Your task to perform on an android device: toggle translation in the chrome app Image 0: 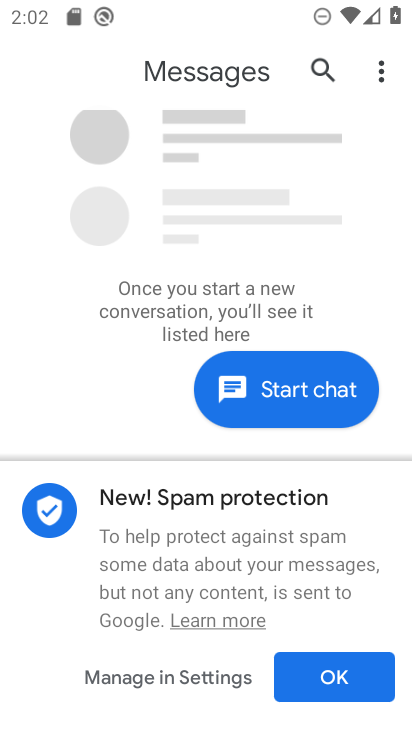
Step 0: drag from (381, 674) to (175, 119)
Your task to perform on an android device: toggle translation in the chrome app Image 1: 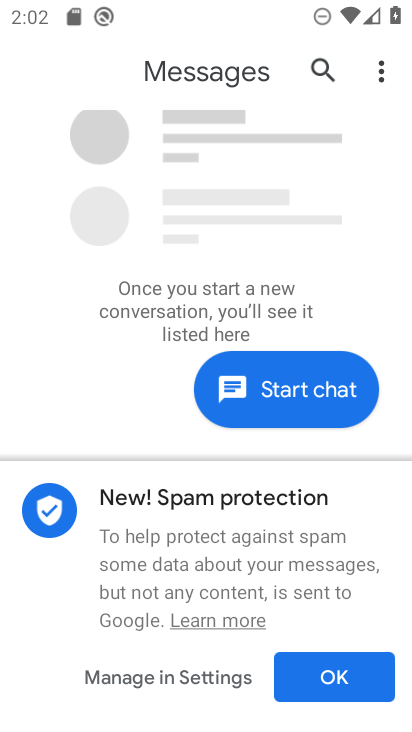
Step 1: press back button
Your task to perform on an android device: toggle translation in the chrome app Image 2: 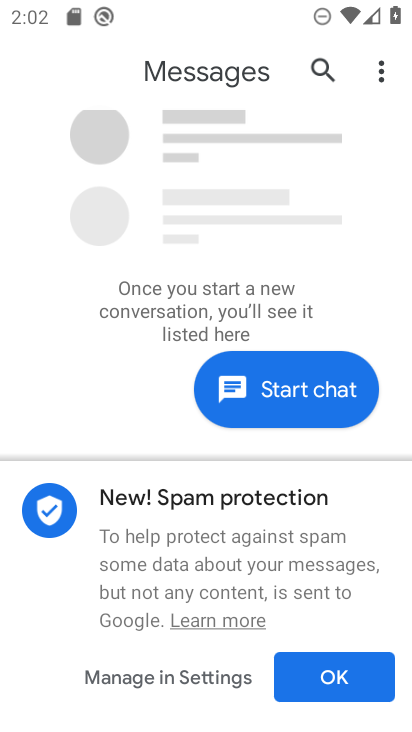
Step 2: press back button
Your task to perform on an android device: toggle translation in the chrome app Image 3: 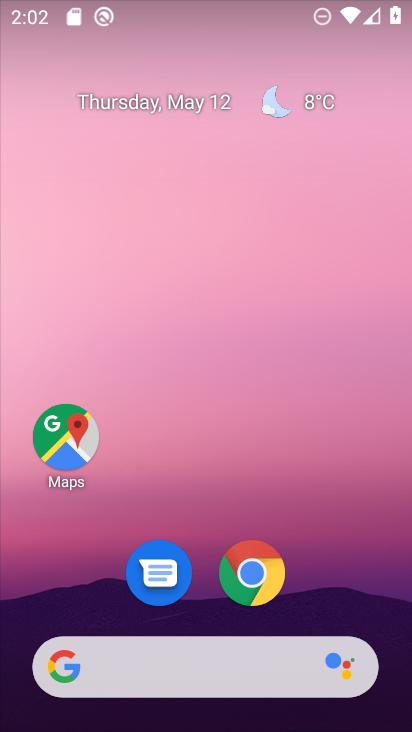
Step 3: drag from (340, 589) to (114, 84)
Your task to perform on an android device: toggle translation in the chrome app Image 4: 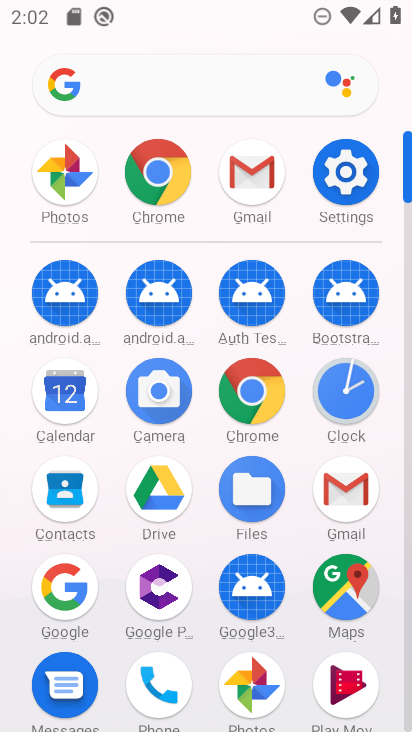
Step 4: click (157, 172)
Your task to perform on an android device: toggle translation in the chrome app Image 5: 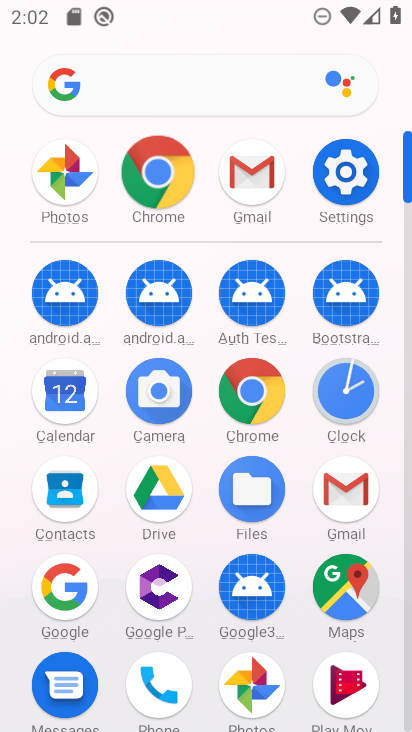
Step 5: click (155, 170)
Your task to perform on an android device: toggle translation in the chrome app Image 6: 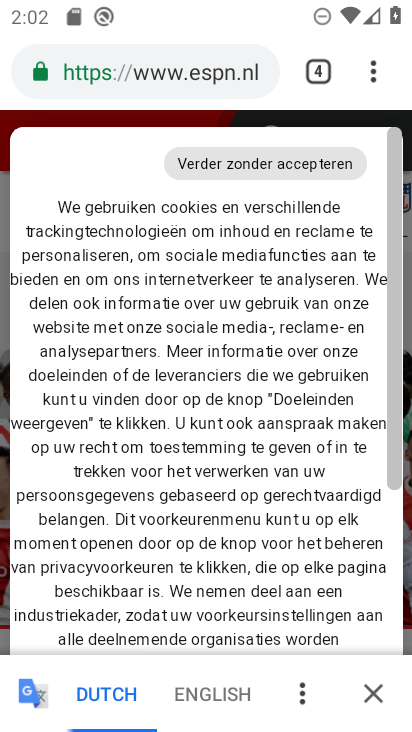
Step 6: drag from (374, 80) to (130, 541)
Your task to perform on an android device: toggle translation in the chrome app Image 7: 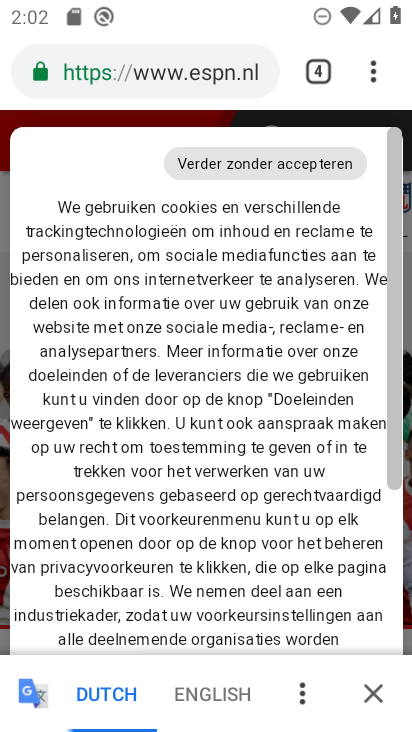
Step 7: click (128, 538)
Your task to perform on an android device: toggle translation in the chrome app Image 8: 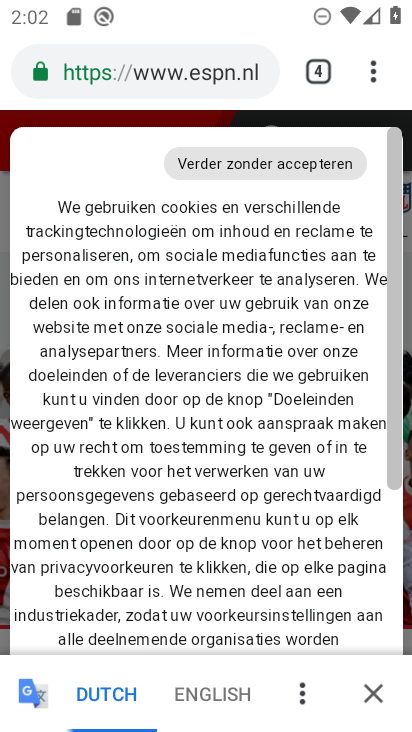
Step 8: drag from (371, 76) to (111, 570)
Your task to perform on an android device: toggle translation in the chrome app Image 9: 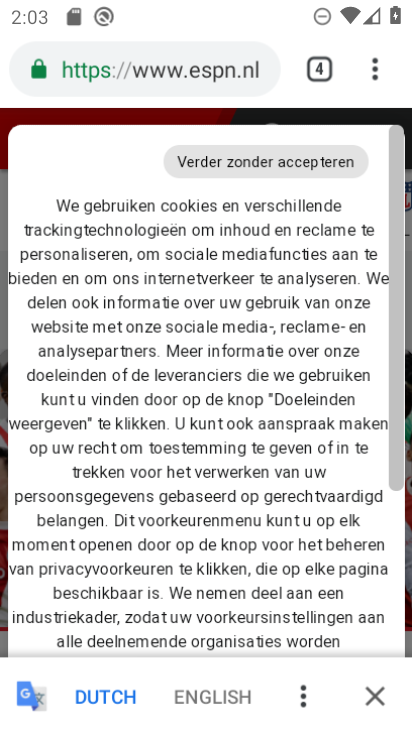
Step 9: click (113, 575)
Your task to perform on an android device: toggle translation in the chrome app Image 10: 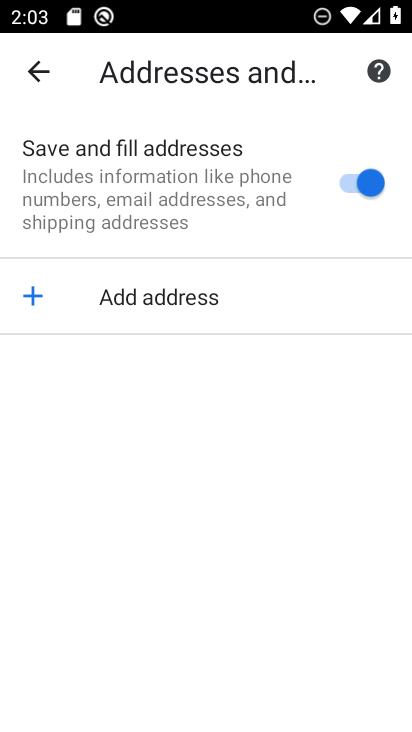
Step 10: click (32, 64)
Your task to perform on an android device: toggle translation in the chrome app Image 11: 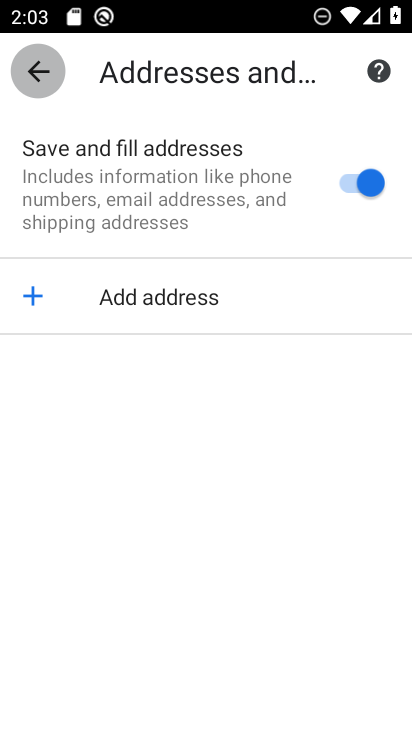
Step 11: click (32, 65)
Your task to perform on an android device: toggle translation in the chrome app Image 12: 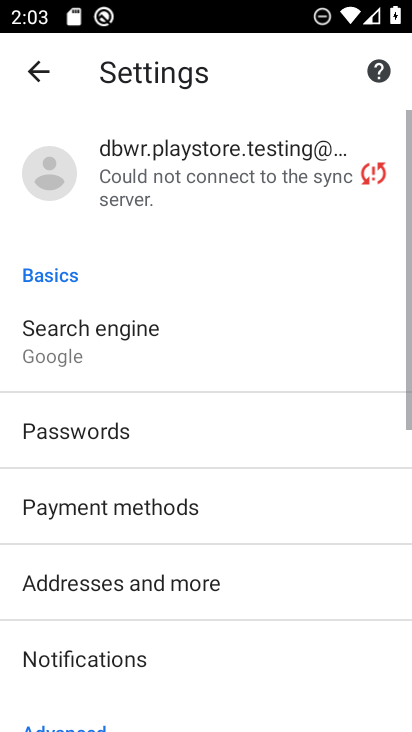
Step 12: drag from (148, 552) to (67, 228)
Your task to perform on an android device: toggle translation in the chrome app Image 13: 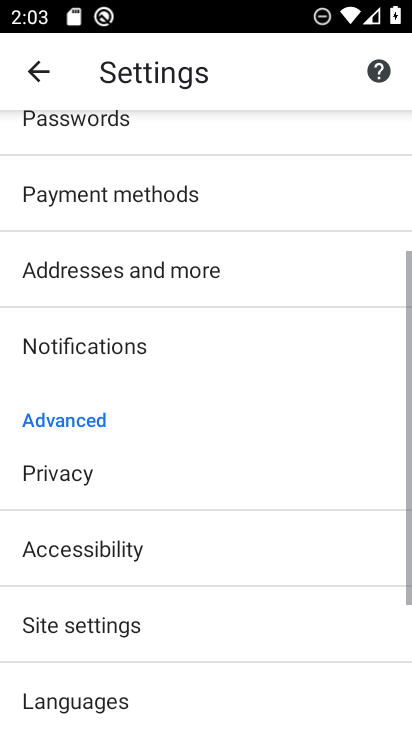
Step 13: drag from (133, 421) to (93, 117)
Your task to perform on an android device: toggle translation in the chrome app Image 14: 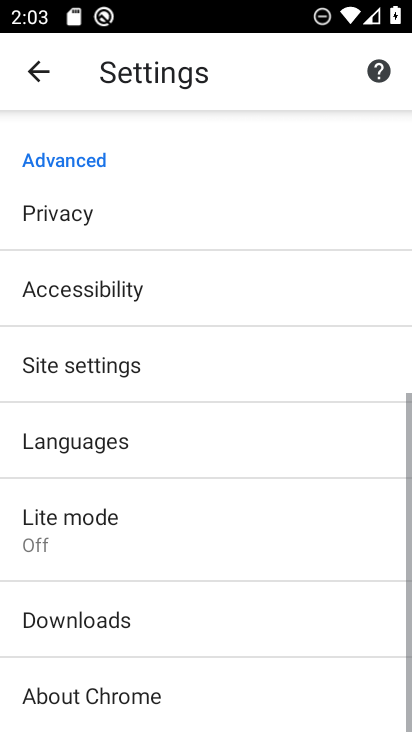
Step 14: drag from (172, 293) to (128, 64)
Your task to perform on an android device: toggle translation in the chrome app Image 15: 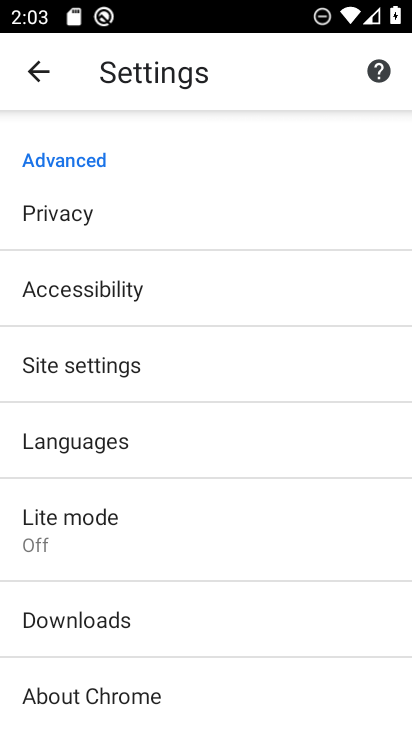
Step 15: click (78, 441)
Your task to perform on an android device: toggle translation in the chrome app Image 16: 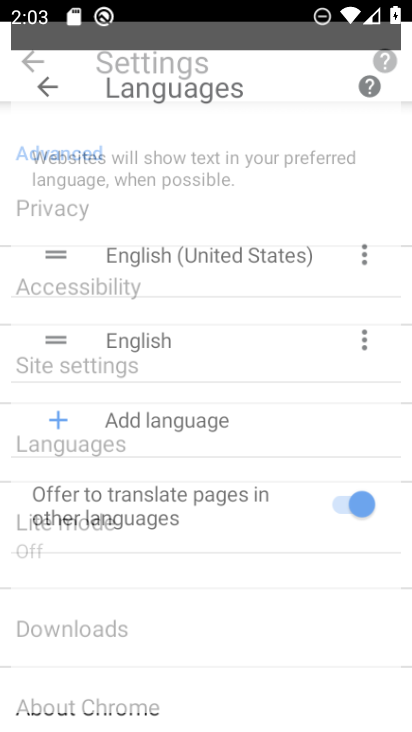
Step 16: click (80, 438)
Your task to perform on an android device: toggle translation in the chrome app Image 17: 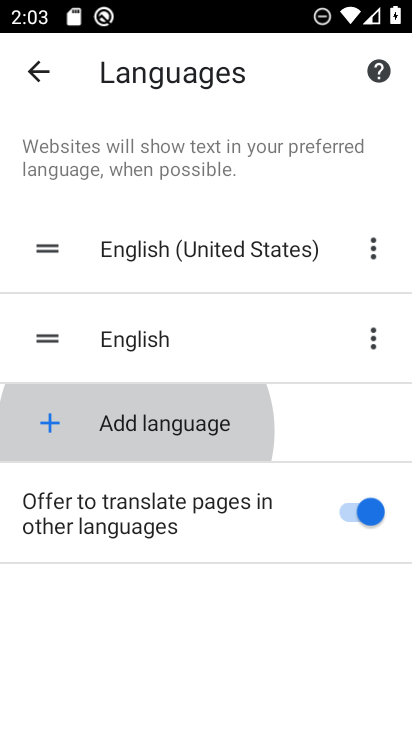
Step 17: click (83, 440)
Your task to perform on an android device: toggle translation in the chrome app Image 18: 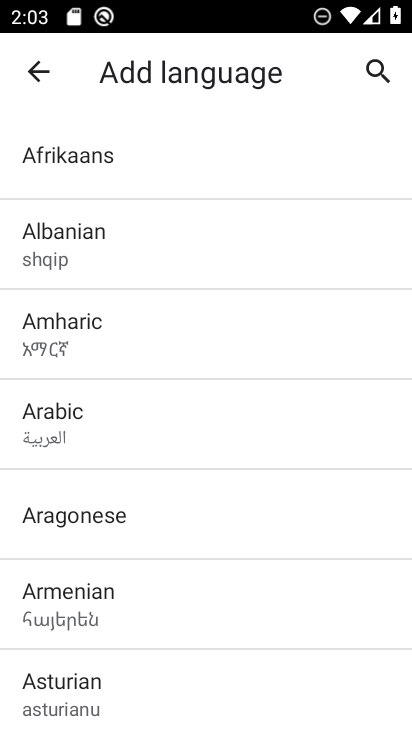
Step 18: click (36, 67)
Your task to perform on an android device: toggle translation in the chrome app Image 19: 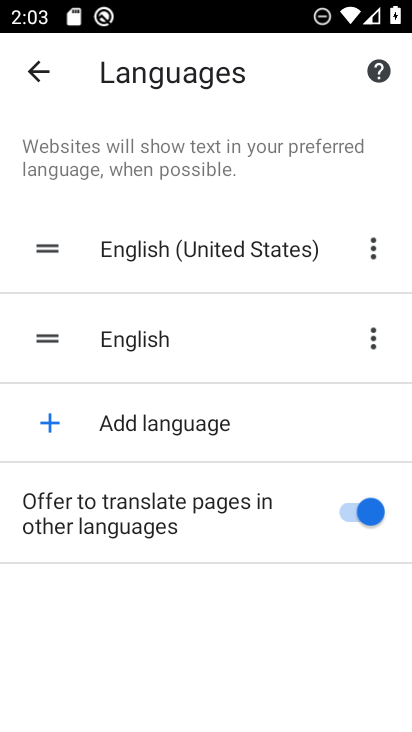
Step 19: click (364, 506)
Your task to perform on an android device: toggle translation in the chrome app Image 20: 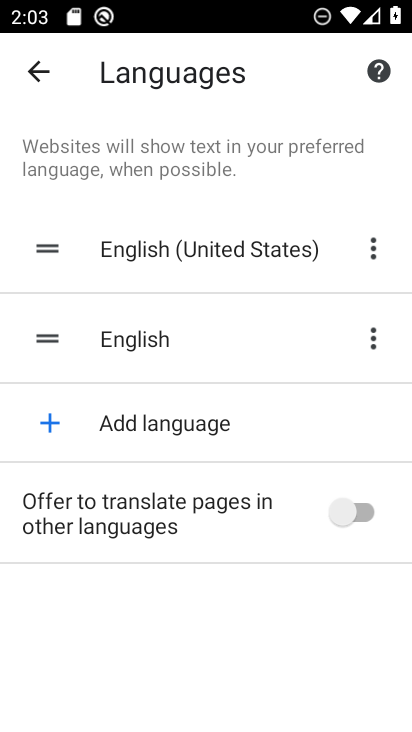
Step 20: task complete